Your task to perform on an android device: What's on my calendar tomorrow? Image 0: 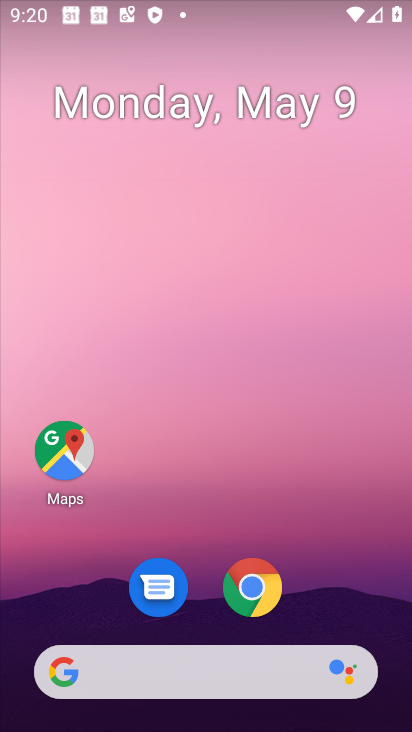
Step 0: click (60, 109)
Your task to perform on an android device: What's on my calendar tomorrow? Image 1: 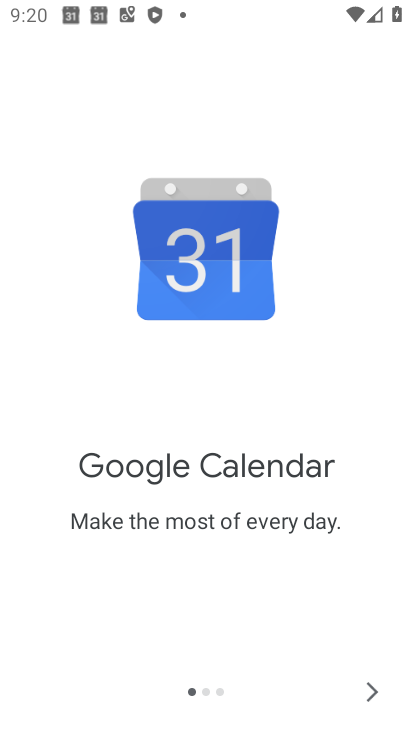
Step 1: click (375, 701)
Your task to perform on an android device: What's on my calendar tomorrow? Image 2: 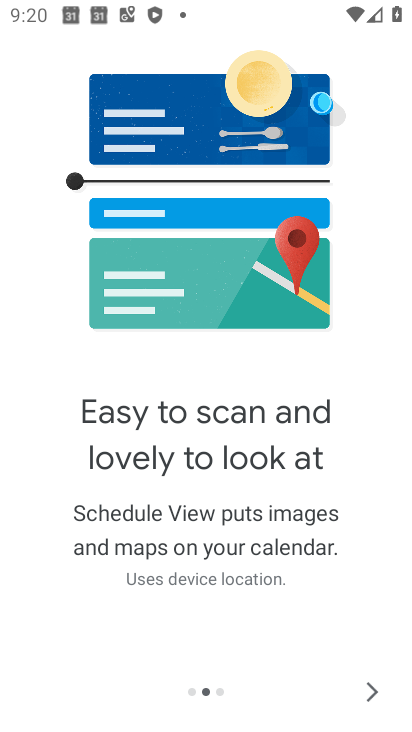
Step 2: click (375, 701)
Your task to perform on an android device: What's on my calendar tomorrow? Image 3: 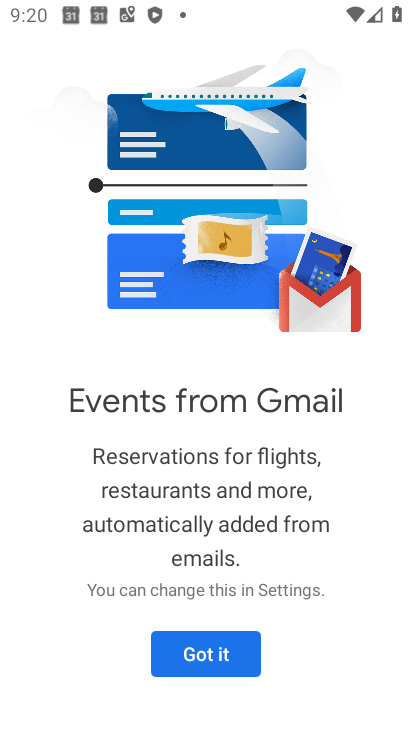
Step 3: click (207, 639)
Your task to perform on an android device: What's on my calendar tomorrow? Image 4: 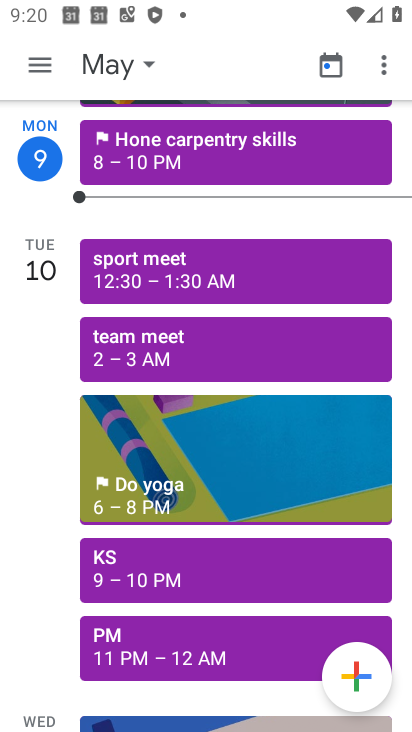
Step 4: click (11, 642)
Your task to perform on an android device: What's on my calendar tomorrow? Image 5: 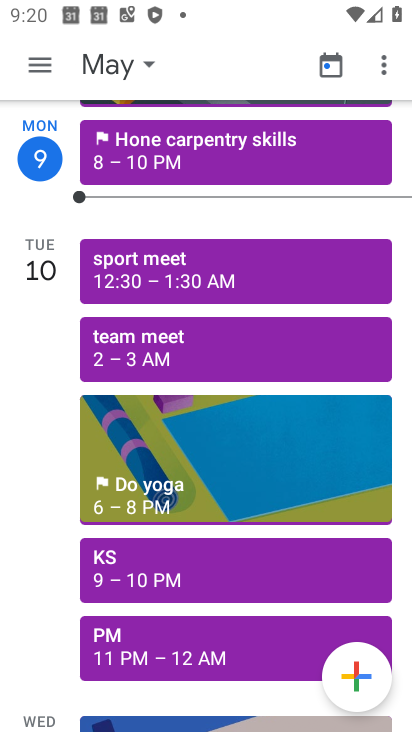
Step 5: click (273, 596)
Your task to perform on an android device: What's on my calendar tomorrow? Image 6: 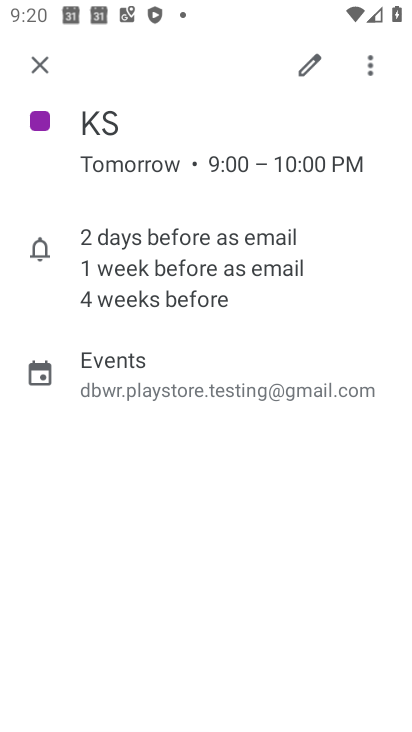
Step 6: task complete